Your task to perform on an android device: Is it going to rain this weekend? Image 0: 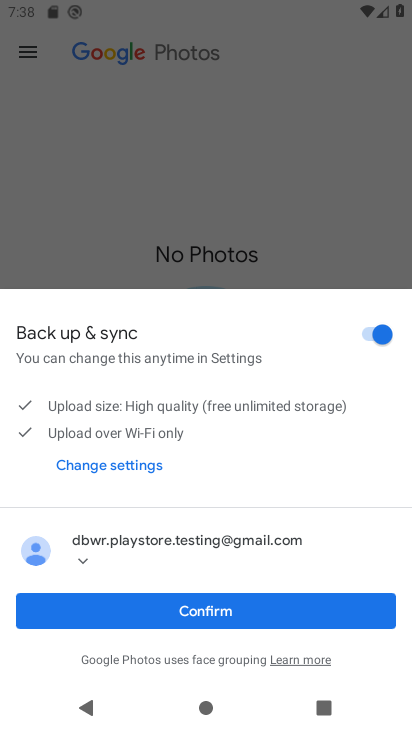
Step 0: press home button
Your task to perform on an android device: Is it going to rain this weekend? Image 1: 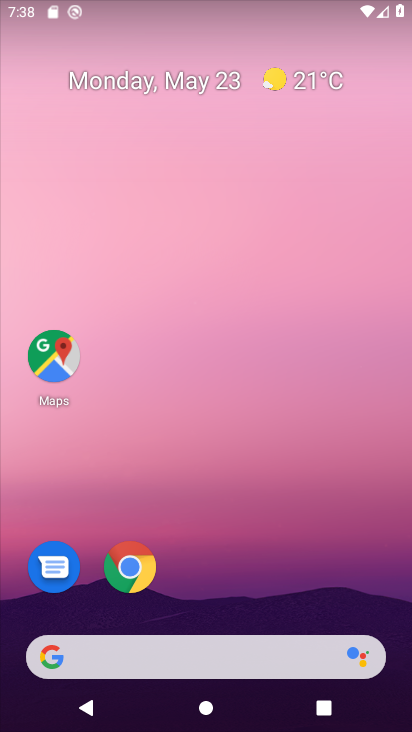
Step 1: click (306, 83)
Your task to perform on an android device: Is it going to rain this weekend? Image 2: 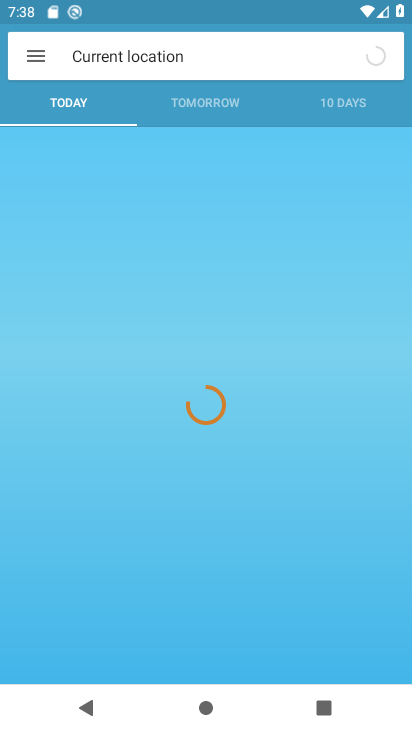
Step 2: click (286, 88)
Your task to perform on an android device: Is it going to rain this weekend? Image 3: 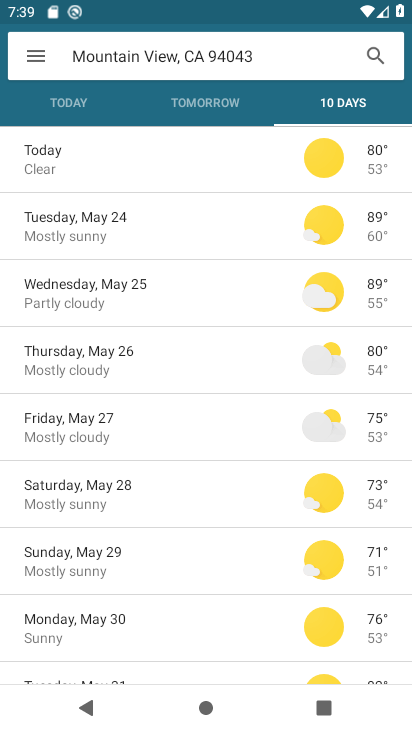
Step 3: click (353, 106)
Your task to perform on an android device: Is it going to rain this weekend? Image 4: 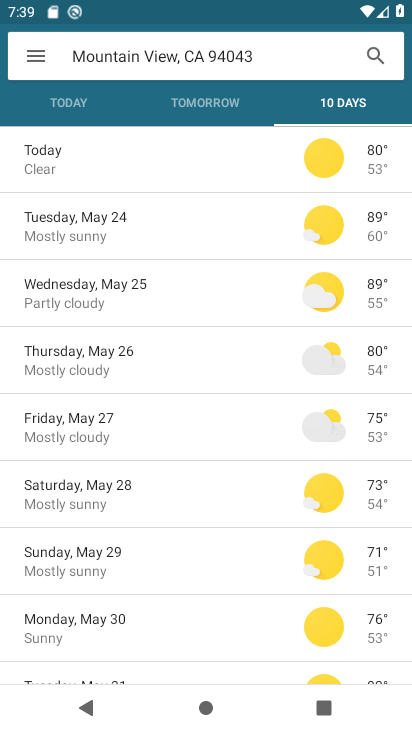
Step 4: task complete